Your task to perform on an android device: Go to wifi settings Image 0: 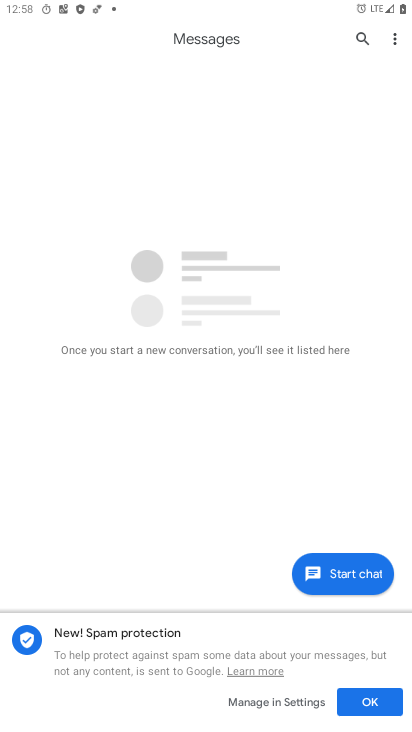
Step 0: press home button
Your task to perform on an android device: Go to wifi settings Image 1: 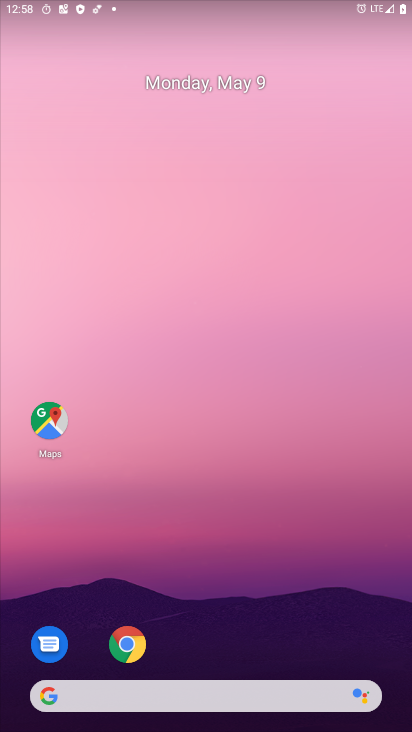
Step 1: drag from (340, 604) to (118, 101)
Your task to perform on an android device: Go to wifi settings Image 2: 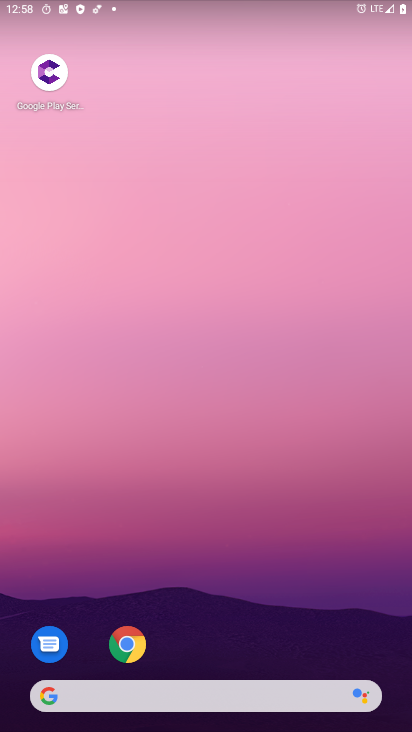
Step 2: drag from (311, 574) to (195, 91)
Your task to perform on an android device: Go to wifi settings Image 3: 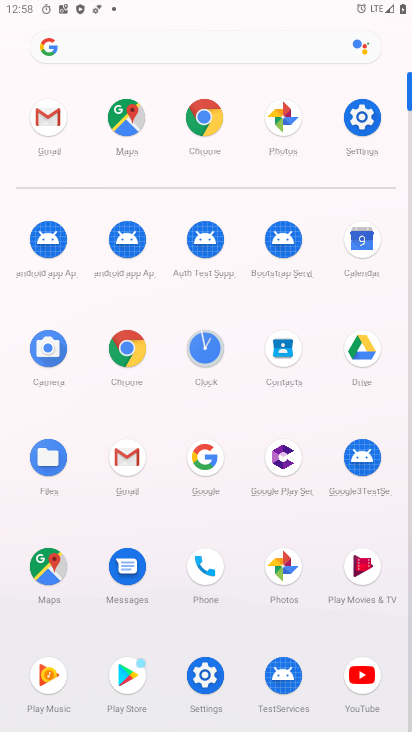
Step 3: click (350, 107)
Your task to perform on an android device: Go to wifi settings Image 4: 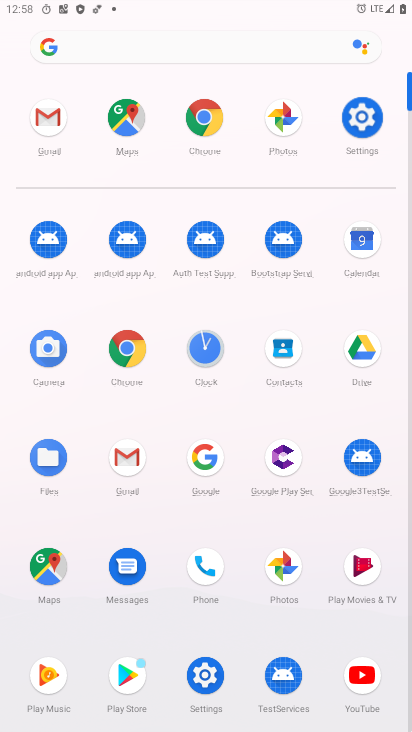
Step 4: click (355, 109)
Your task to perform on an android device: Go to wifi settings Image 5: 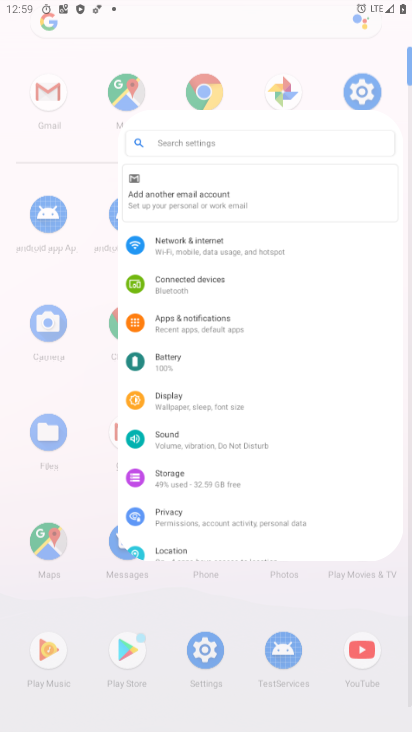
Step 5: click (355, 109)
Your task to perform on an android device: Go to wifi settings Image 6: 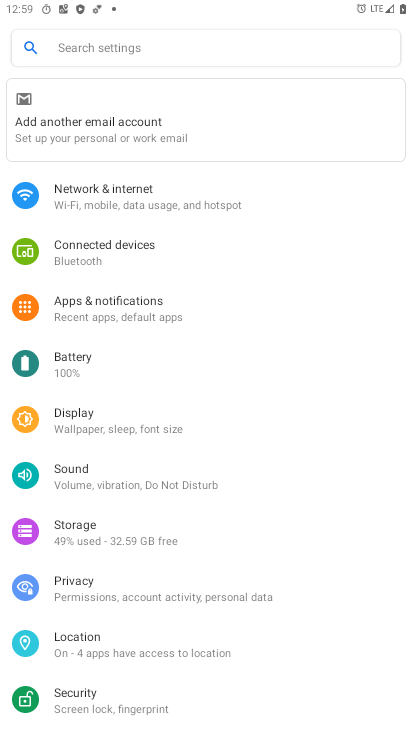
Step 6: click (122, 209)
Your task to perform on an android device: Go to wifi settings Image 7: 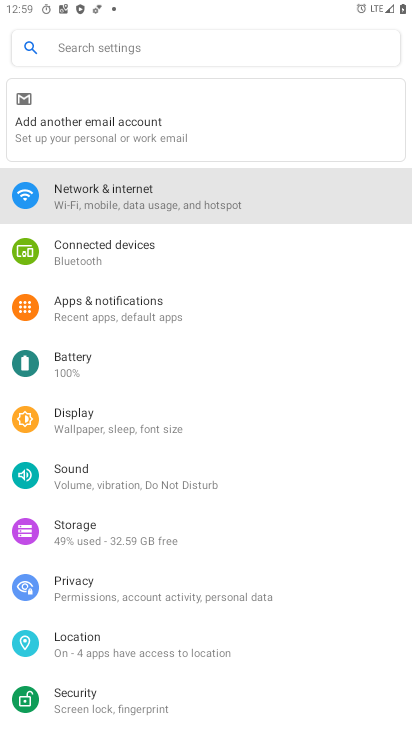
Step 7: click (126, 209)
Your task to perform on an android device: Go to wifi settings Image 8: 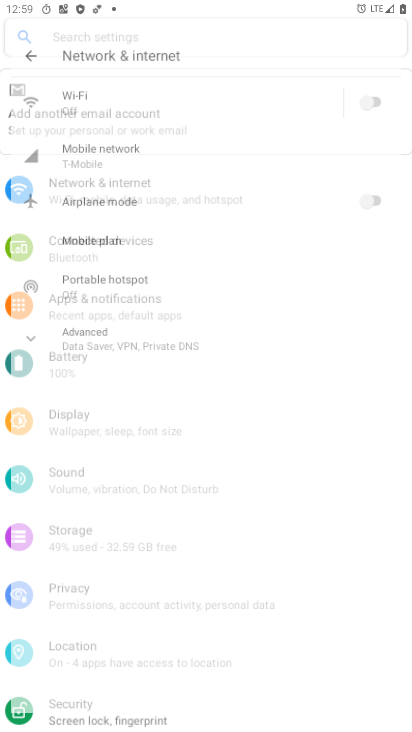
Step 8: click (128, 209)
Your task to perform on an android device: Go to wifi settings Image 9: 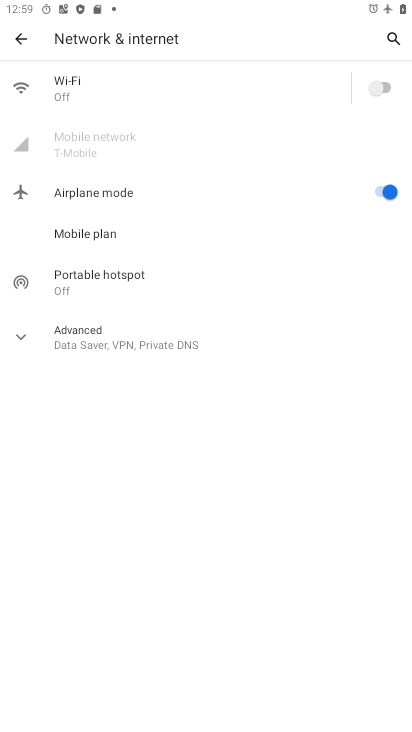
Step 9: task complete